Your task to perform on an android device: Open maps Image 0: 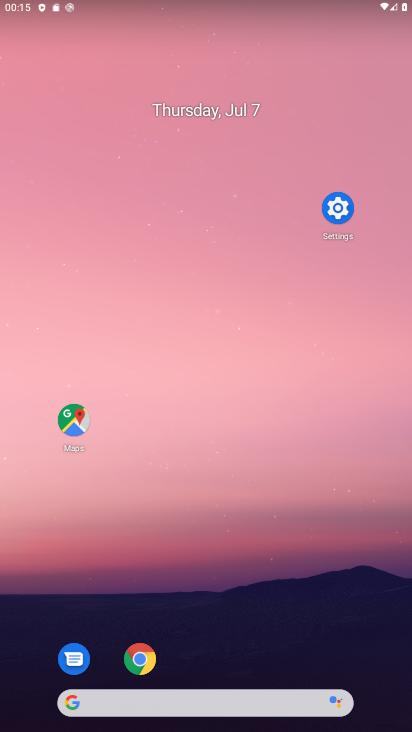
Step 0: drag from (197, 677) to (203, 238)
Your task to perform on an android device: Open maps Image 1: 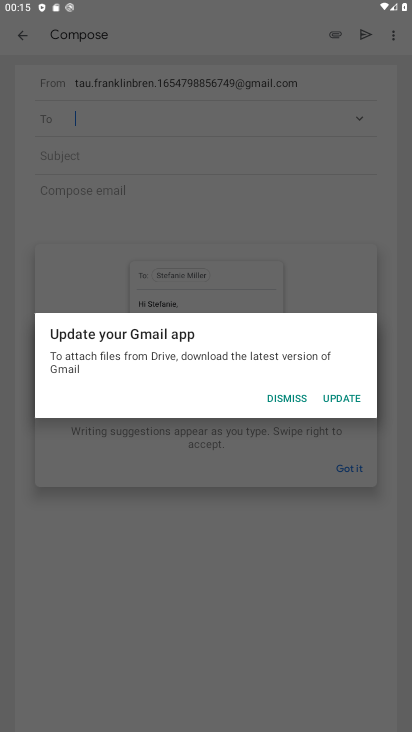
Step 1: click (278, 403)
Your task to perform on an android device: Open maps Image 2: 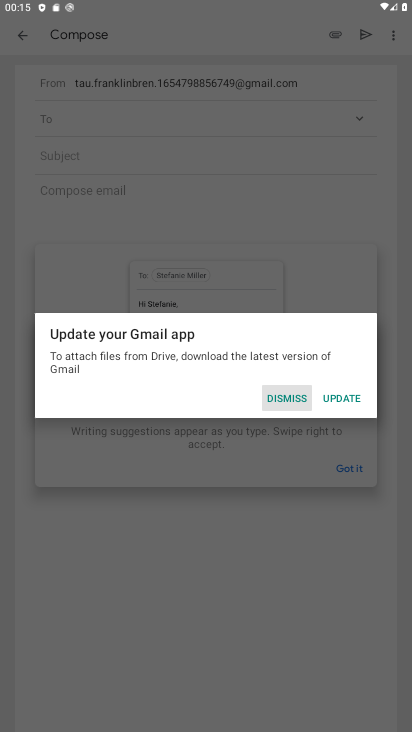
Step 2: click (279, 402)
Your task to perform on an android device: Open maps Image 3: 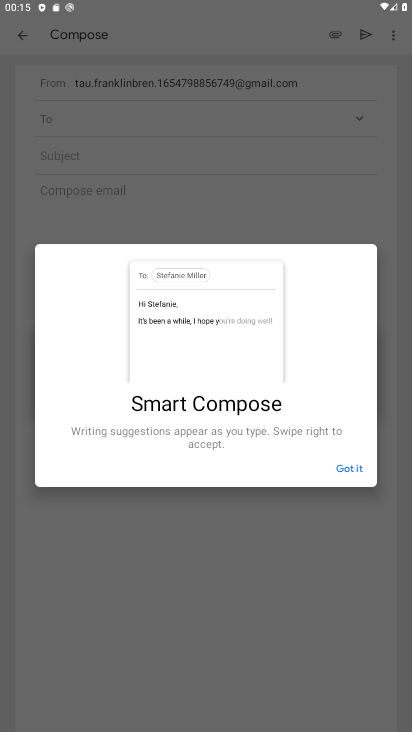
Step 3: click (278, 402)
Your task to perform on an android device: Open maps Image 4: 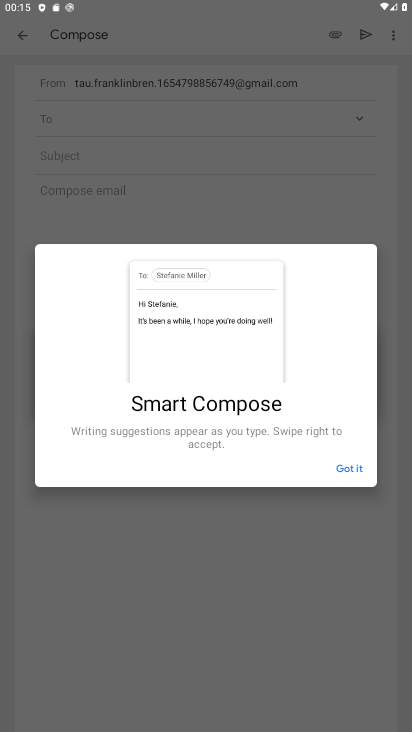
Step 4: click (340, 462)
Your task to perform on an android device: Open maps Image 5: 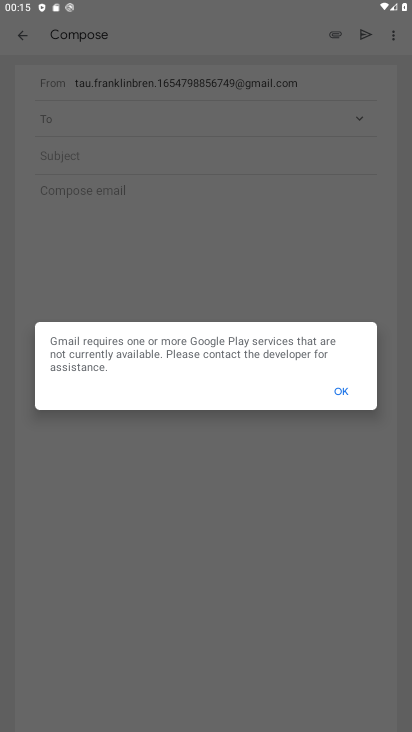
Step 5: click (343, 462)
Your task to perform on an android device: Open maps Image 6: 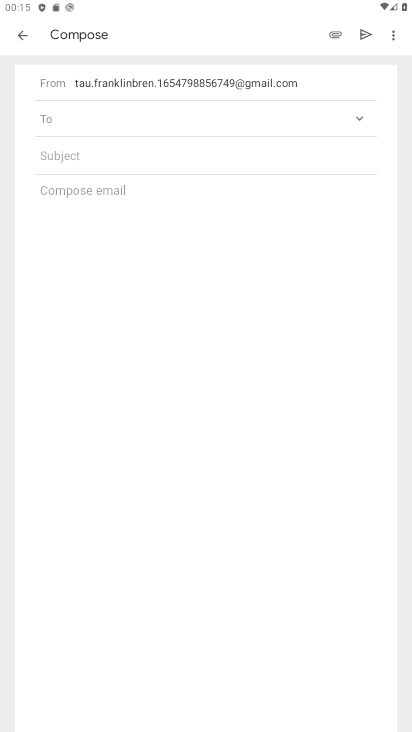
Step 6: click (21, 34)
Your task to perform on an android device: Open maps Image 7: 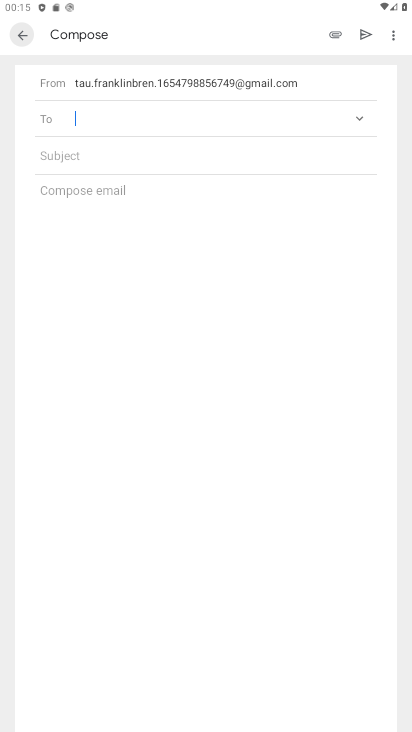
Step 7: click (25, 37)
Your task to perform on an android device: Open maps Image 8: 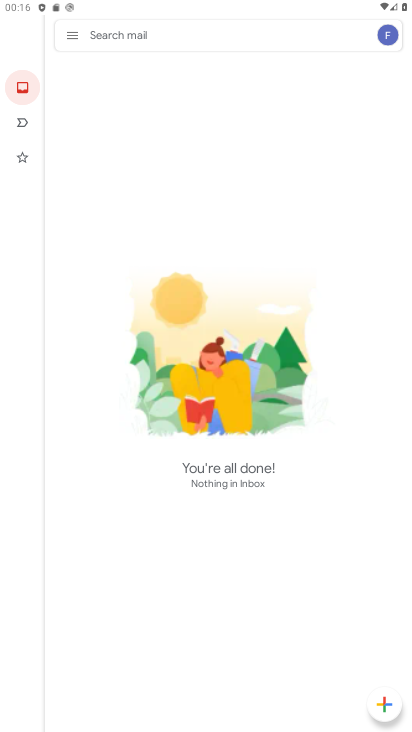
Step 8: press back button
Your task to perform on an android device: Open maps Image 9: 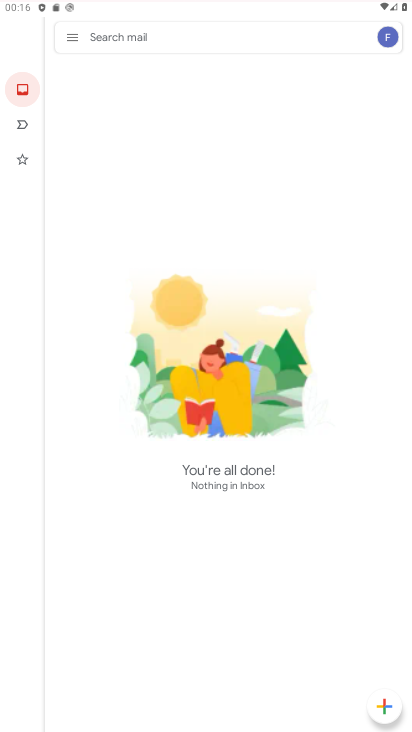
Step 9: press back button
Your task to perform on an android device: Open maps Image 10: 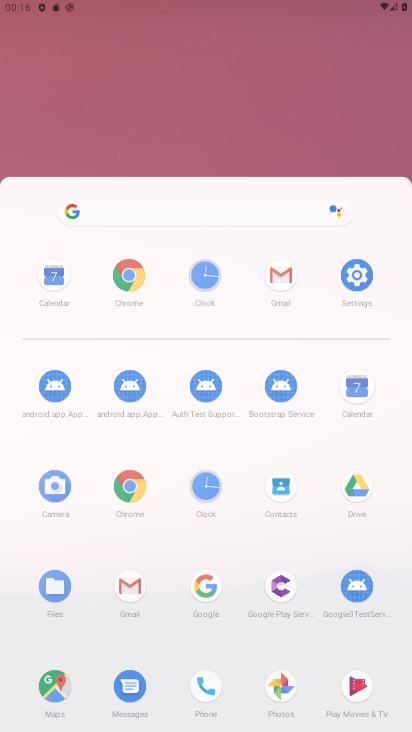
Step 10: press back button
Your task to perform on an android device: Open maps Image 11: 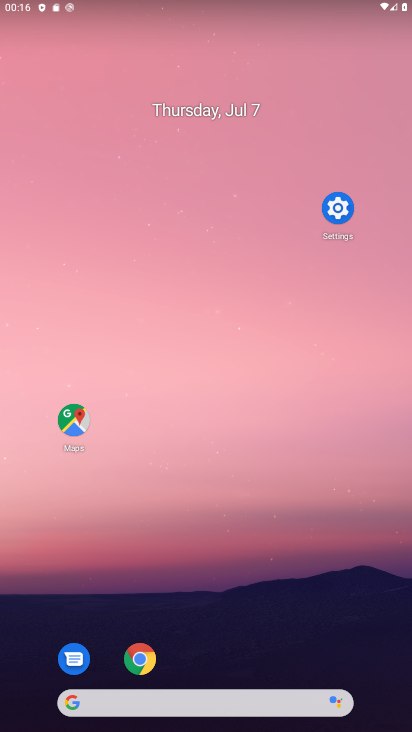
Step 11: drag from (260, 581) to (172, 189)
Your task to perform on an android device: Open maps Image 12: 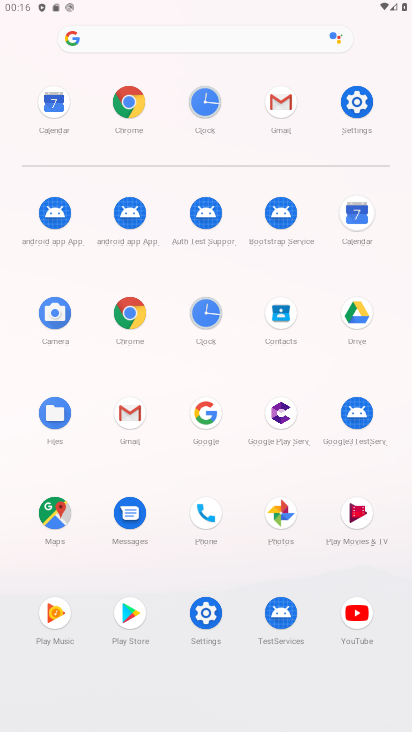
Step 12: click (69, 512)
Your task to perform on an android device: Open maps Image 13: 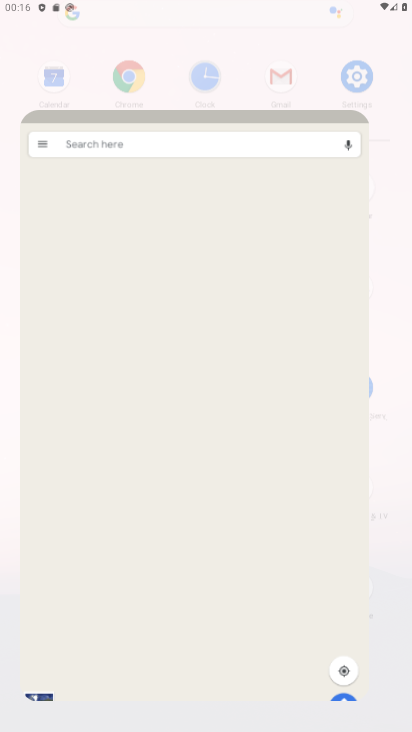
Step 13: click (62, 513)
Your task to perform on an android device: Open maps Image 14: 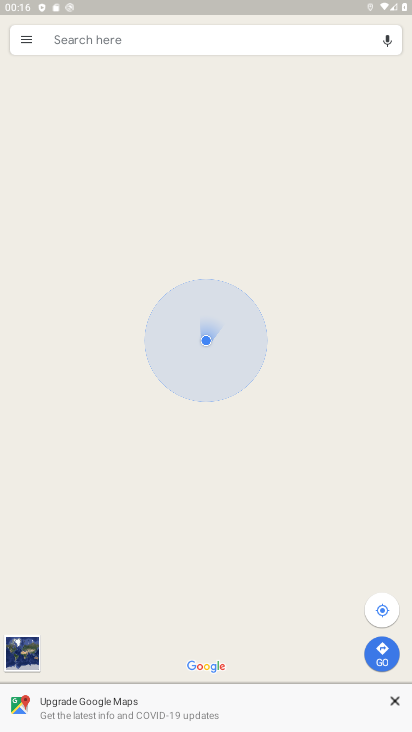
Step 14: task complete